Your task to perform on an android device: delete the emails in spam in the gmail app Image 0: 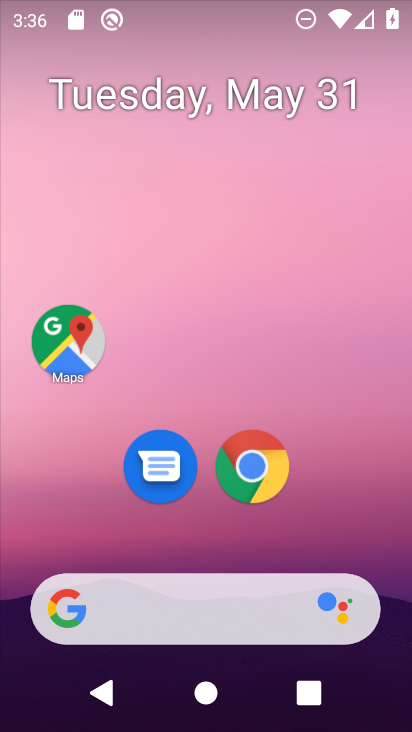
Step 0: drag from (182, 561) to (243, 90)
Your task to perform on an android device: delete the emails in spam in the gmail app Image 1: 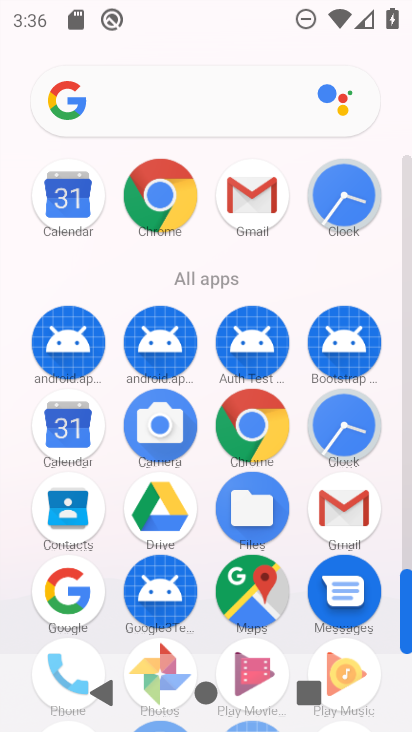
Step 1: click (252, 199)
Your task to perform on an android device: delete the emails in spam in the gmail app Image 2: 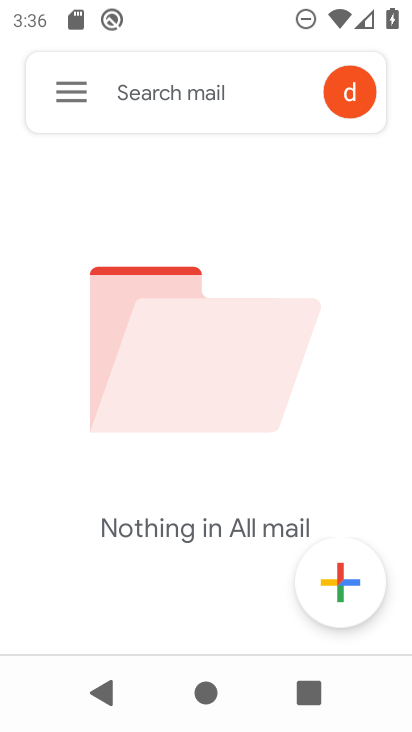
Step 2: click (64, 87)
Your task to perform on an android device: delete the emails in spam in the gmail app Image 3: 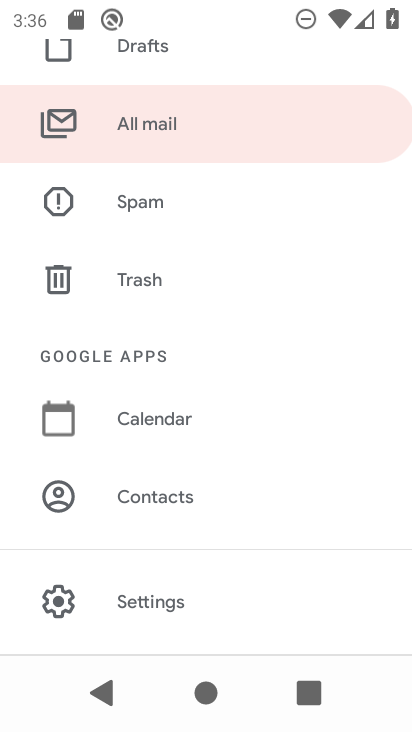
Step 3: click (144, 205)
Your task to perform on an android device: delete the emails in spam in the gmail app Image 4: 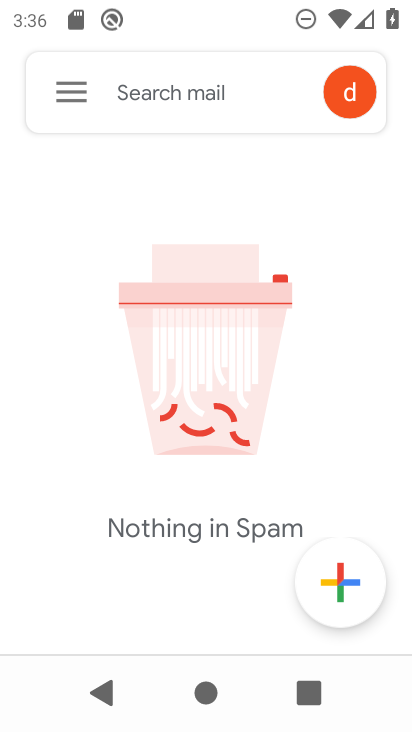
Step 4: task complete